Your task to perform on an android device: change keyboard looks Image 0: 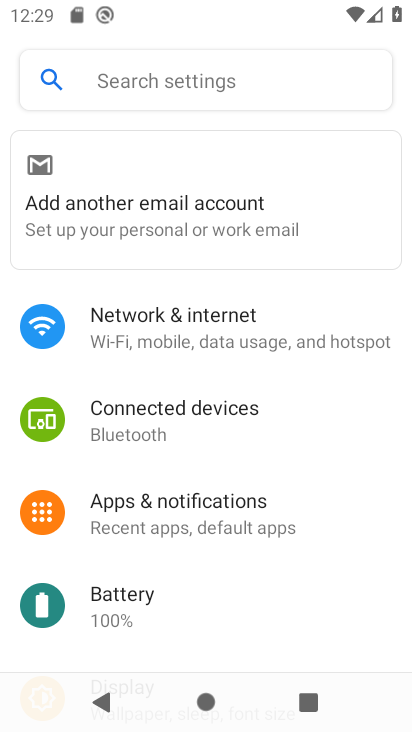
Step 0: drag from (163, 556) to (154, 32)
Your task to perform on an android device: change keyboard looks Image 1: 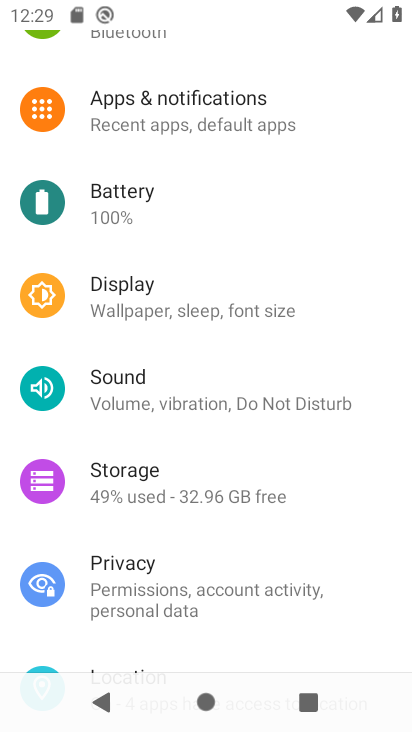
Step 1: drag from (209, 531) to (164, 126)
Your task to perform on an android device: change keyboard looks Image 2: 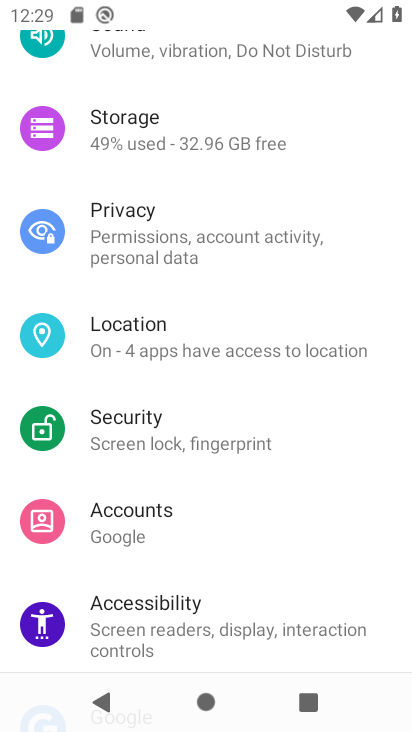
Step 2: drag from (208, 568) to (176, 159)
Your task to perform on an android device: change keyboard looks Image 3: 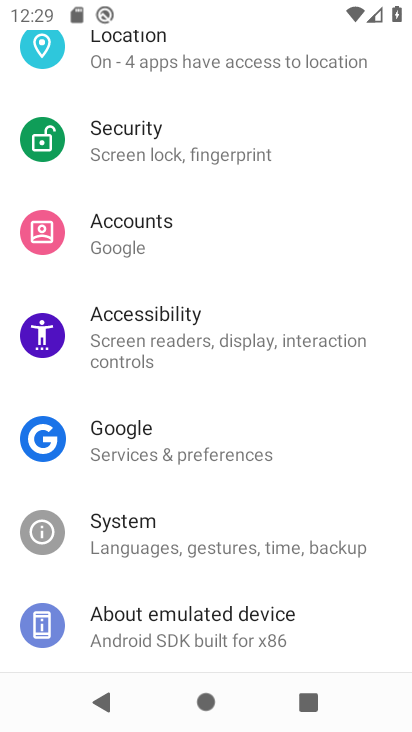
Step 3: click (134, 514)
Your task to perform on an android device: change keyboard looks Image 4: 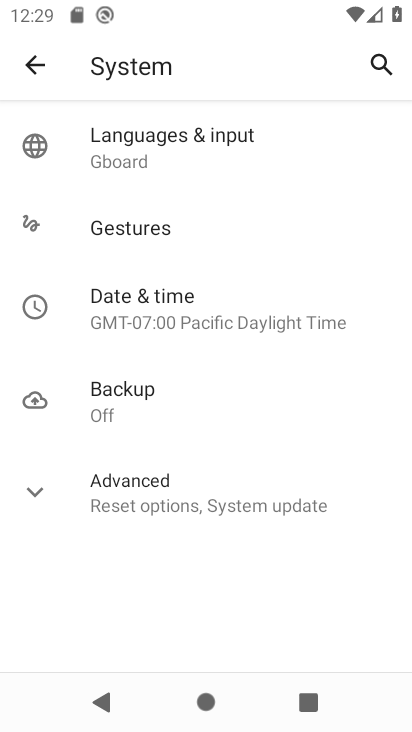
Step 4: click (135, 152)
Your task to perform on an android device: change keyboard looks Image 5: 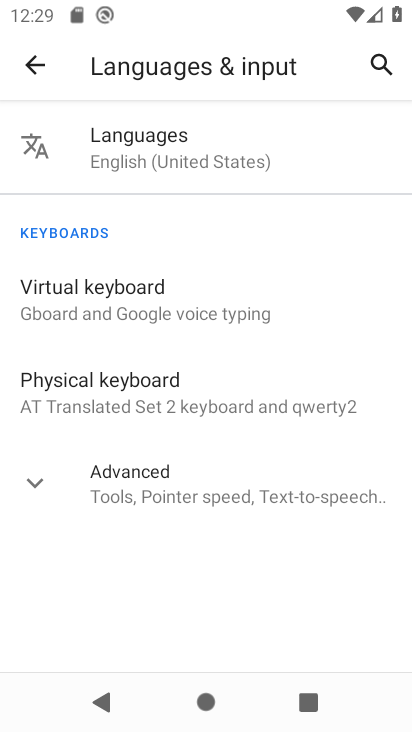
Step 5: click (95, 280)
Your task to perform on an android device: change keyboard looks Image 6: 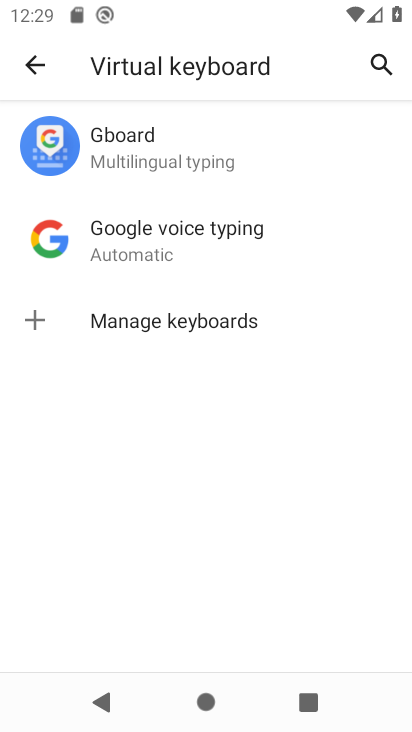
Step 6: click (124, 137)
Your task to perform on an android device: change keyboard looks Image 7: 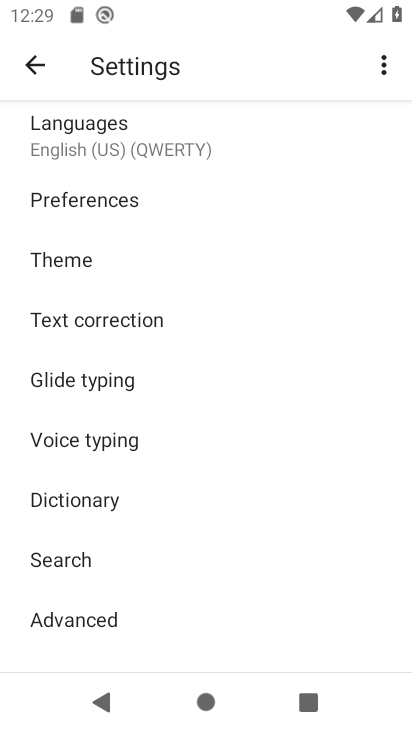
Step 7: click (71, 260)
Your task to perform on an android device: change keyboard looks Image 8: 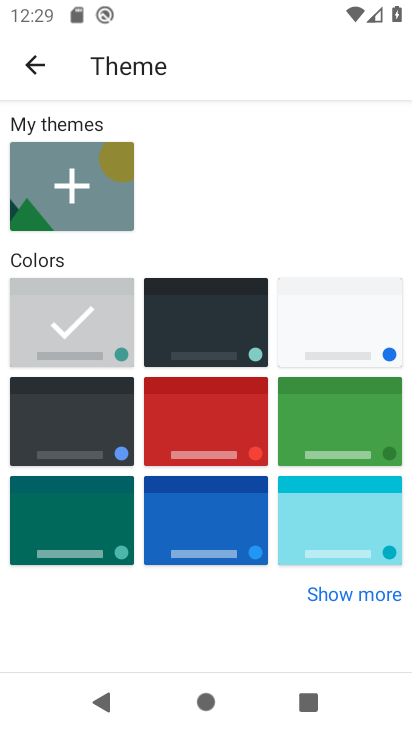
Step 8: click (309, 428)
Your task to perform on an android device: change keyboard looks Image 9: 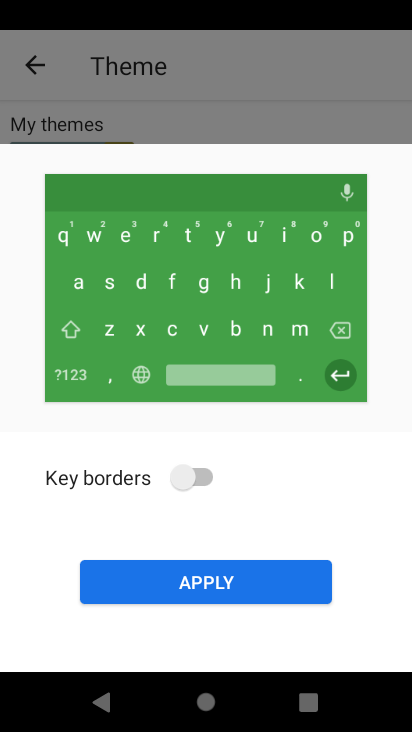
Step 9: click (181, 582)
Your task to perform on an android device: change keyboard looks Image 10: 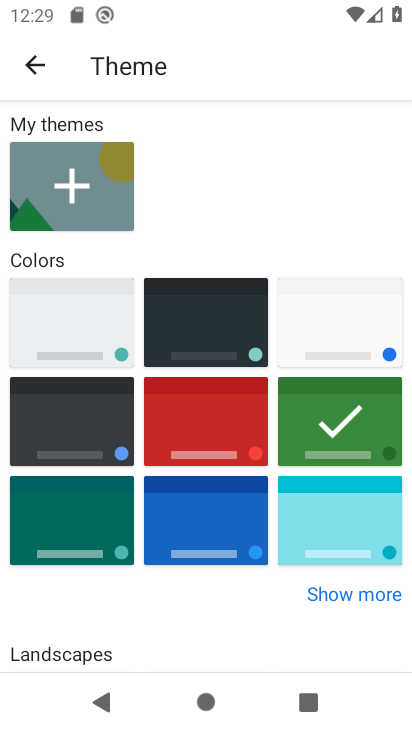
Step 10: task complete